Your task to perform on an android device: toggle wifi Image 0: 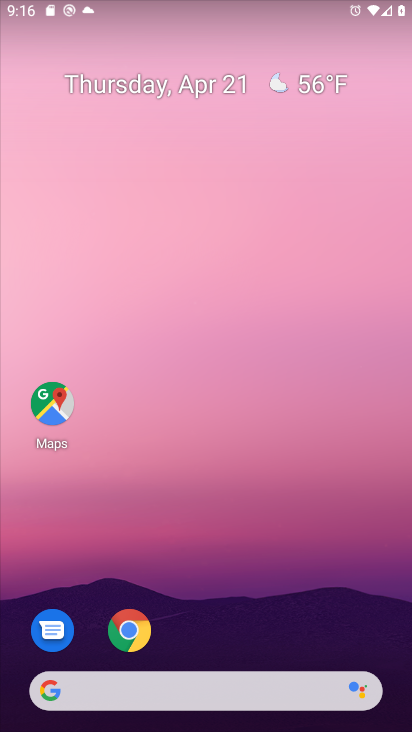
Step 0: drag from (199, 601) to (387, 432)
Your task to perform on an android device: toggle wifi Image 1: 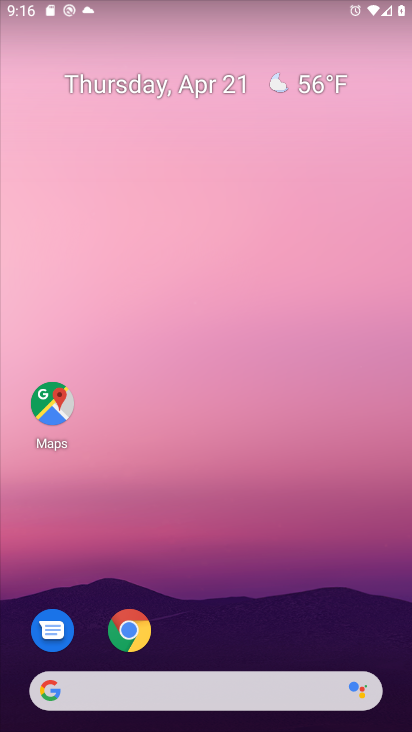
Step 1: drag from (184, 619) to (289, 47)
Your task to perform on an android device: toggle wifi Image 2: 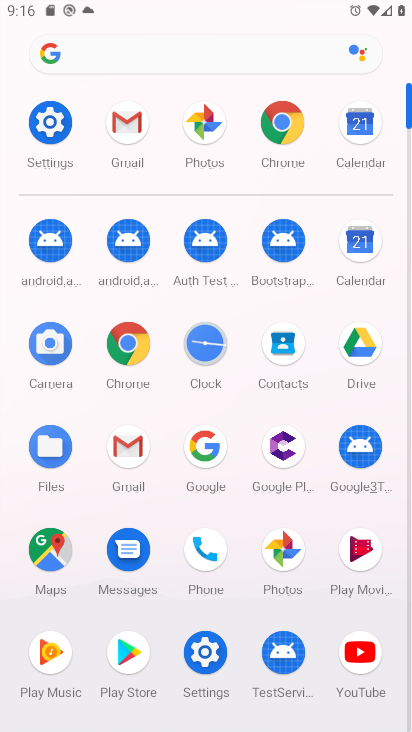
Step 2: click (61, 127)
Your task to perform on an android device: toggle wifi Image 3: 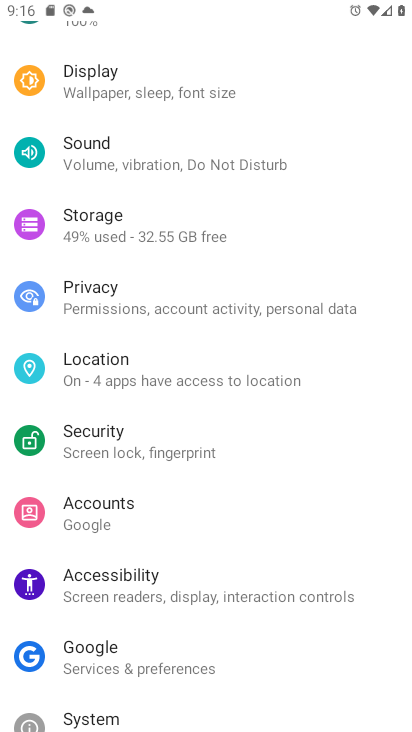
Step 3: drag from (141, 145) to (186, 721)
Your task to perform on an android device: toggle wifi Image 4: 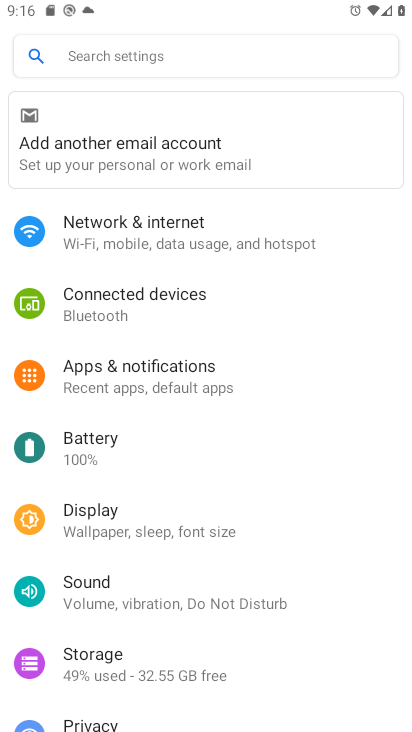
Step 4: click (131, 229)
Your task to perform on an android device: toggle wifi Image 5: 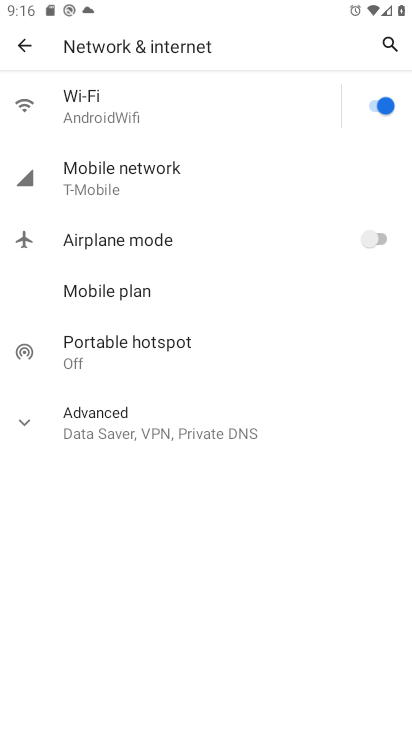
Step 5: click (363, 106)
Your task to perform on an android device: toggle wifi Image 6: 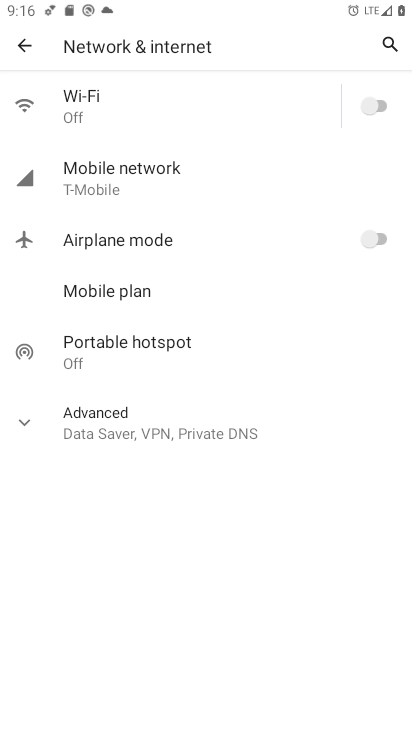
Step 6: task complete